Your task to perform on an android device: toggle show notifications on the lock screen Image 0: 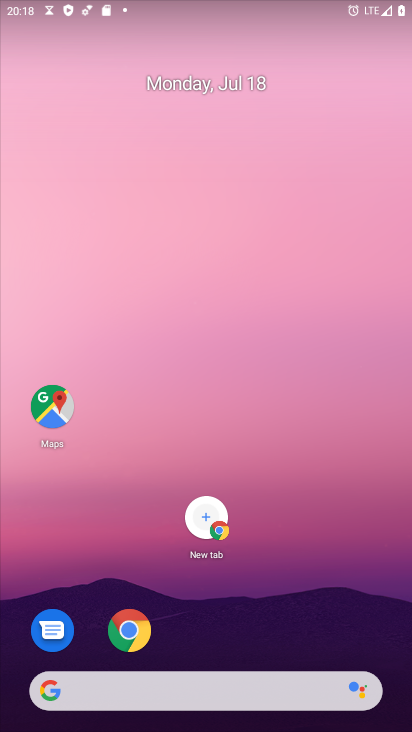
Step 0: drag from (250, 651) to (304, 229)
Your task to perform on an android device: toggle show notifications on the lock screen Image 1: 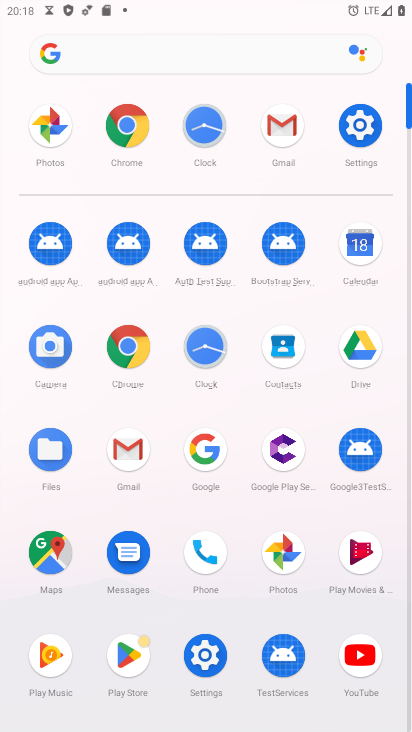
Step 1: click (372, 125)
Your task to perform on an android device: toggle show notifications on the lock screen Image 2: 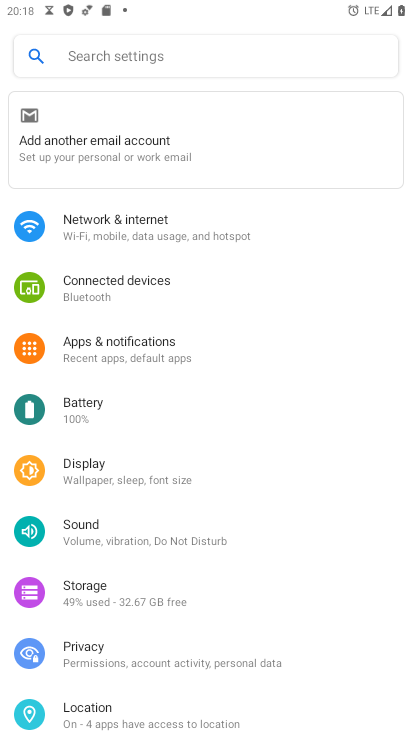
Step 2: click (71, 653)
Your task to perform on an android device: toggle show notifications on the lock screen Image 3: 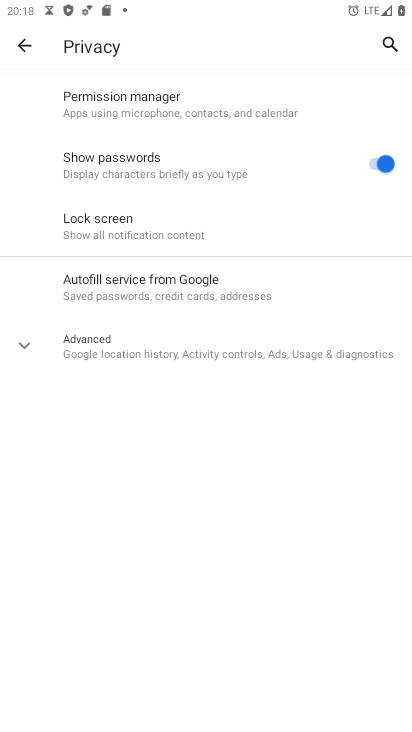
Step 3: click (63, 222)
Your task to perform on an android device: toggle show notifications on the lock screen Image 4: 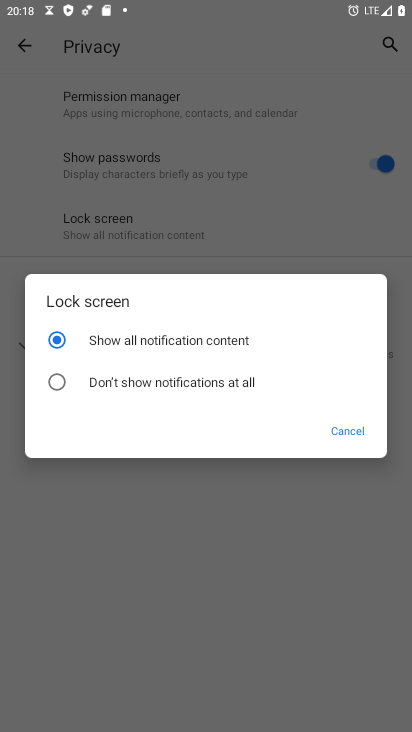
Step 4: click (164, 382)
Your task to perform on an android device: toggle show notifications on the lock screen Image 5: 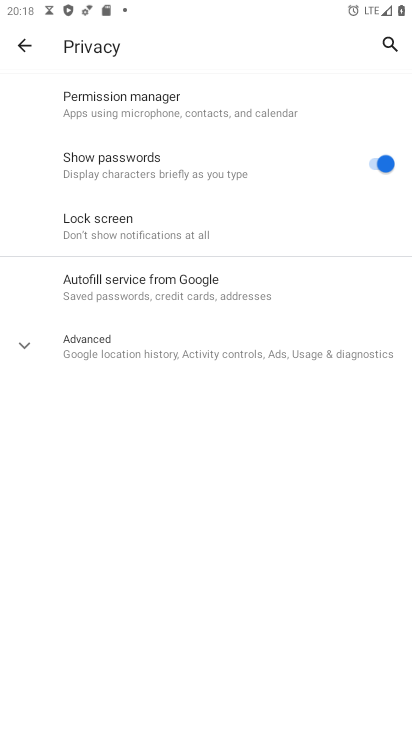
Step 5: task complete